Your task to perform on an android device: snooze an email in the gmail app Image 0: 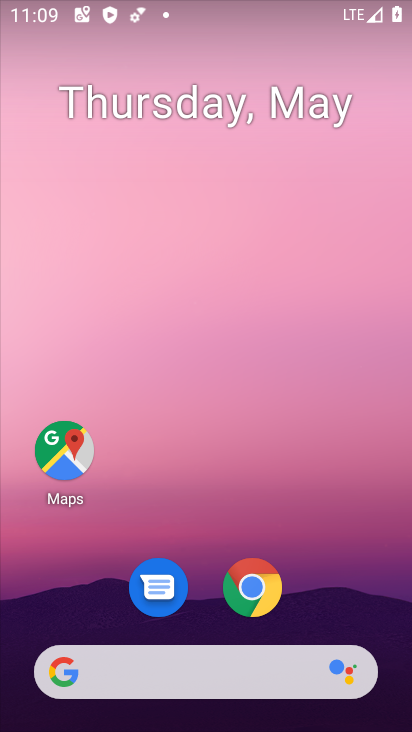
Step 0: drag from (67, 641) to (212, 110)
Your task to perform on an android device: snooze an email in the gmail app Image 1: 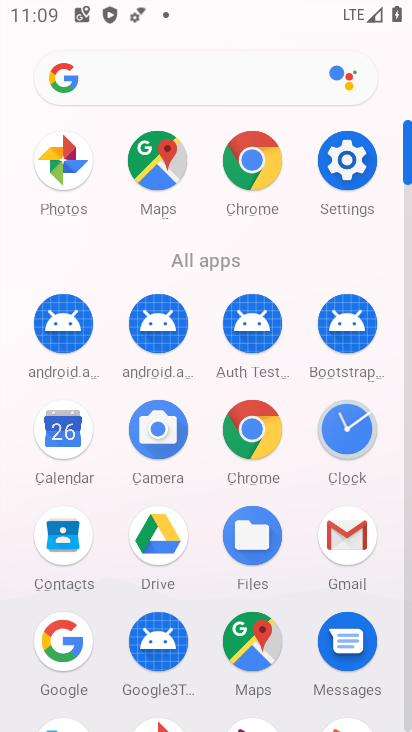
Step 1: click (359, 531)
Your task to perform on an android device: snooze an email in the gmail app Image 2: 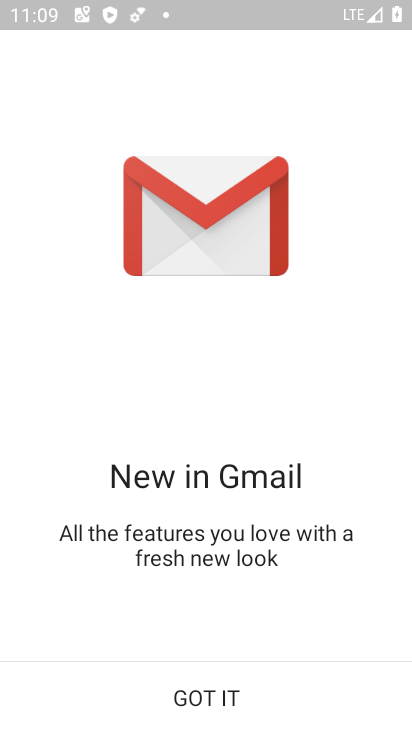
Step 2: click (220, 691)
Your task to perform on an android device: snooze an email in the gmail app Image 3: 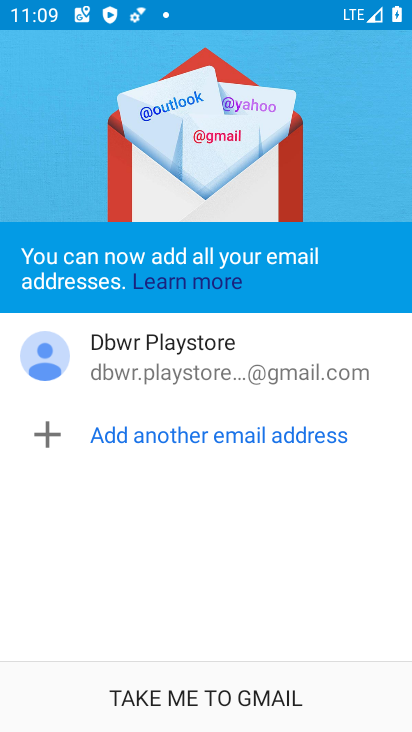
Step 3: click (264, 696)
Your task to perform on an android device: snooze an email in the gmail app Image 4: 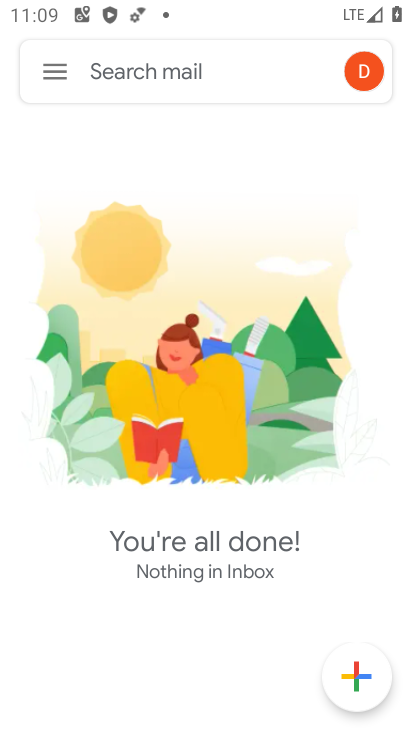
Step 4: click (70, 71)
Your task to perform on an android device: snooze an email in the gmail app Image 5: 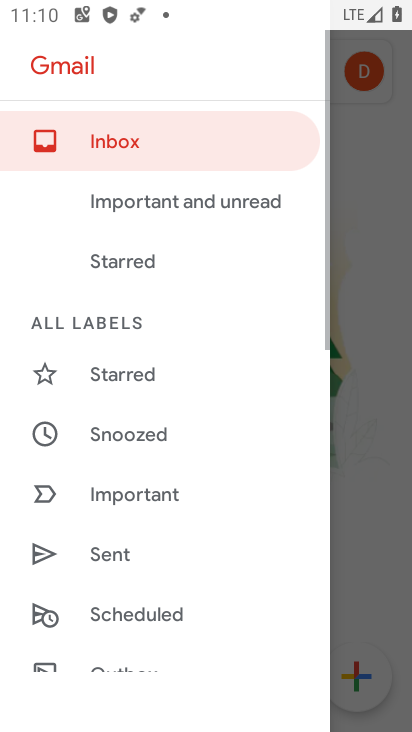
Step 5: drag from (159, 623) to (280, 229)
Your task to perform on an android device: snooze an email in the gmail app Image 6: 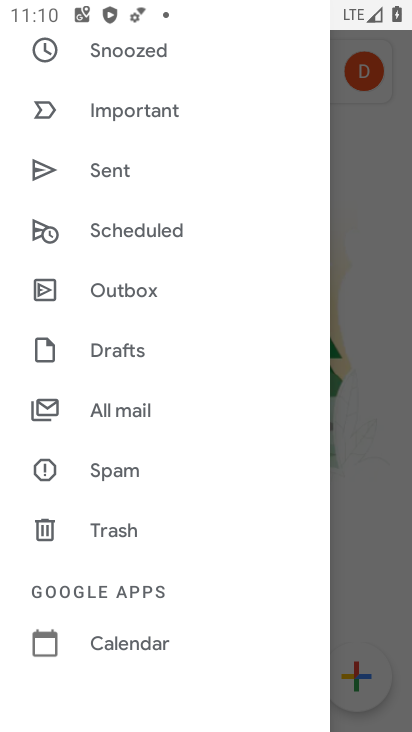
Step 6: click (170, 421)
Your task to perform on an android device: snooze an email in the gmail app Image 7: 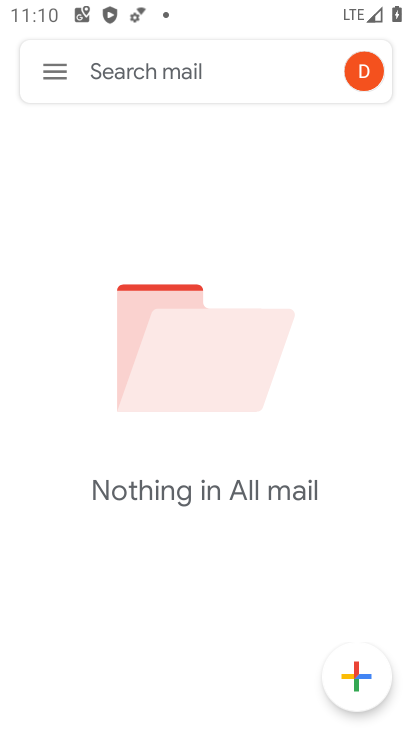
Step 7: task complete